Your task to perform on an android device: Go to ESPN.com Image 0: 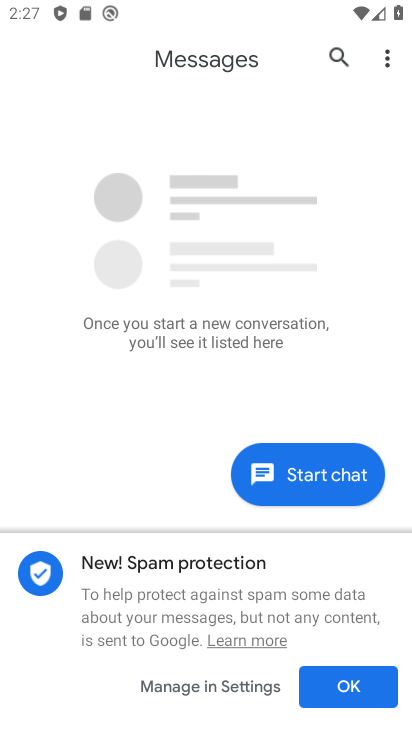
Step 0: click (341, 688)
Your task to perform on an android device: Go to ESPN.com Image 1: 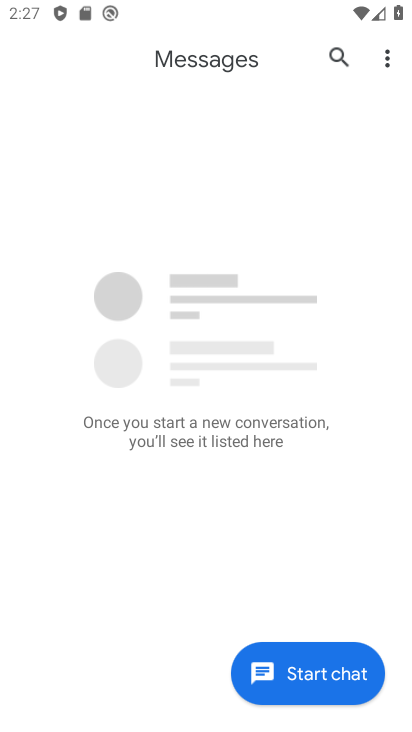
Step 1: press home button
Your task to perform on an android device: Go to ESPN.com Image 2: 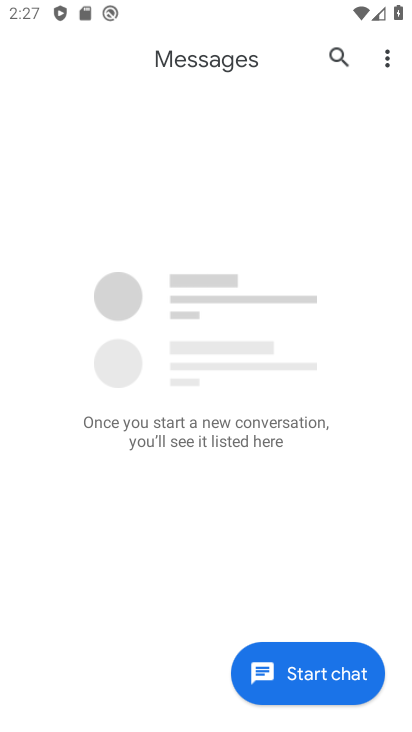
Step 2: press home button
Your task to perform on an android device: Go to ESPN.com Image 3: 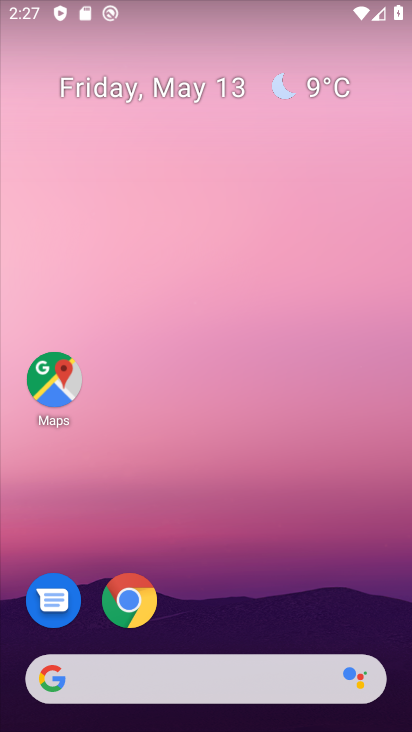
Step 3: click (140, 603)
Your task to perform on an android device: Go to ESPN.com Image 4: 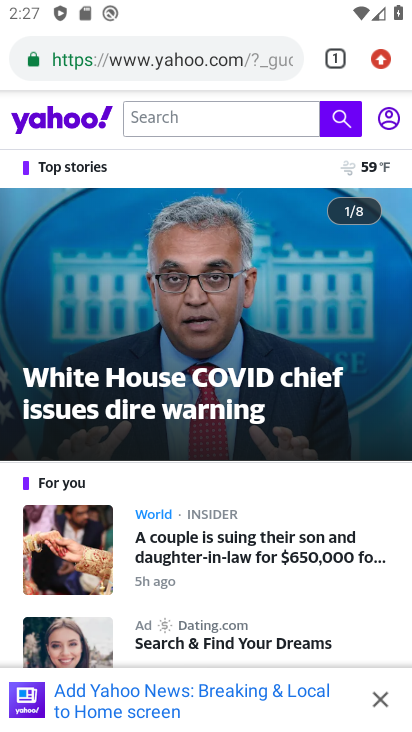
Step 4: click (253, 48)
Your task to perform on an android device: Go to ESPN.com Image 5: 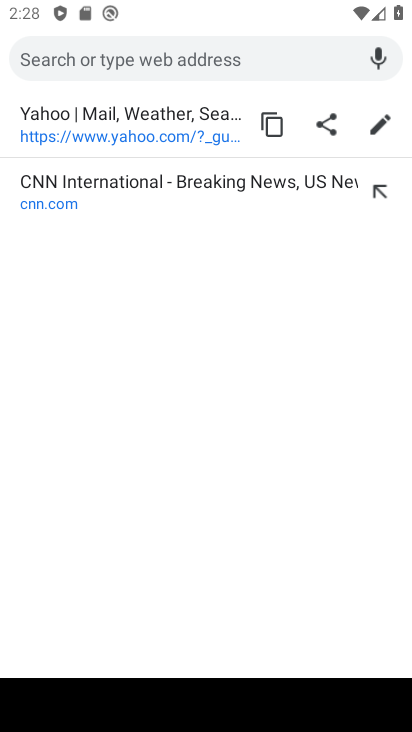
Step 5: type "epsn.com"
Your task to perform on an android device: Go to ESPN.com Image 6: 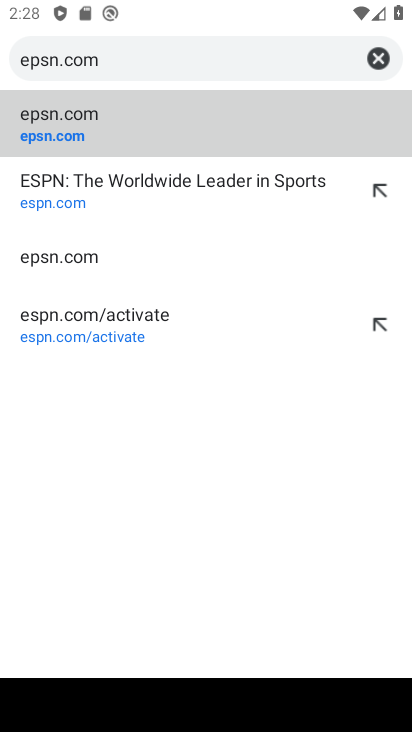
Step 6: click (62, 122)
Your task to perform on an android device: Go to ESPN.com Image 7: 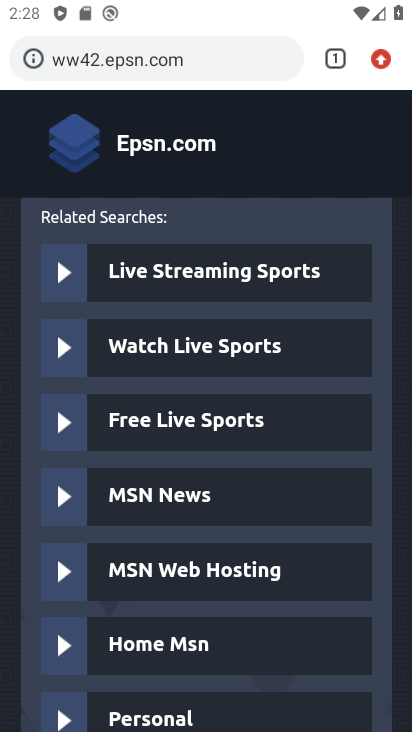
Step 7: task complete